Your task to perform on an android device: Go to eBay Image 0: 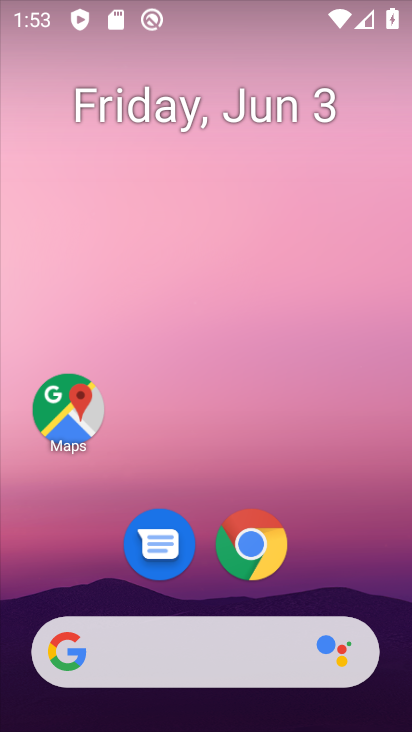
Step 0: drag from (370, 546) to (342, 142)
Your task to perform on an android device: Go to eBay Image 1: 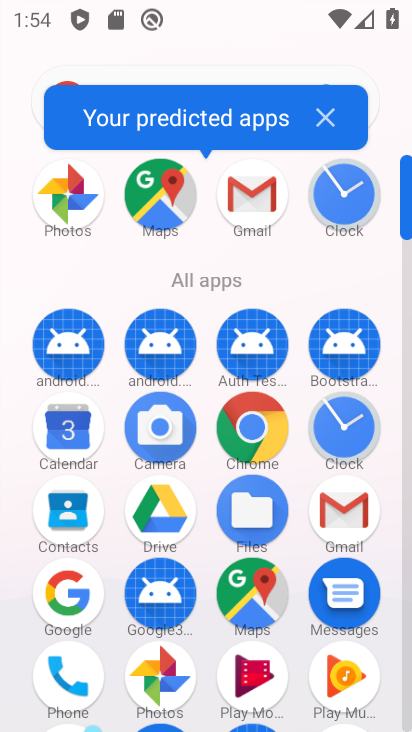
Step 1: click (266, 432)
Your task to perform on an android device: Go to eBay Image 2: 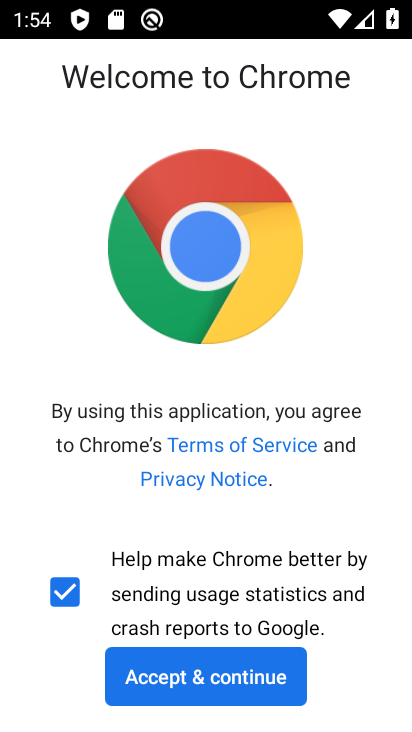
Step 2: click (229, 695)
Your task to perform on an android device: Go to eBay Image 3: 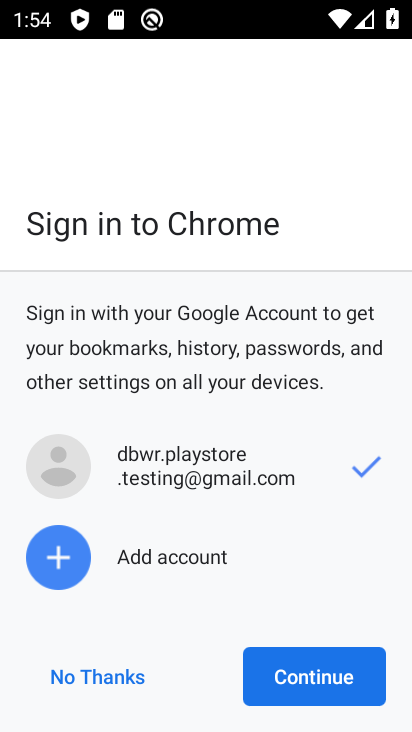
Step 3: click (289, 697)
Your task to perform on an android device: Go to eBay Image 4: 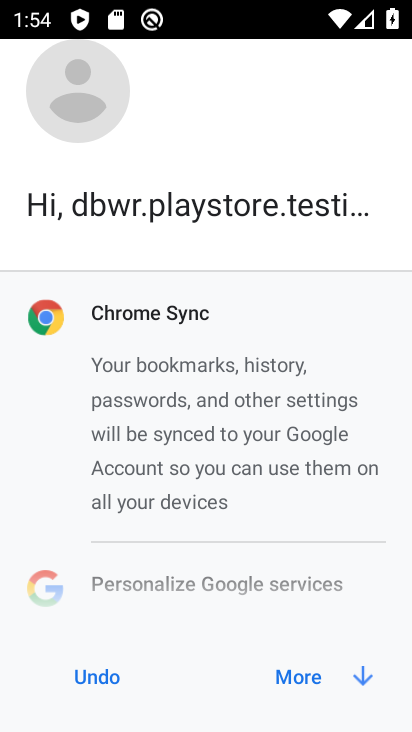
Step 4: click (296, 682)
Your task to perform on an android device: Go to eBay Image 5: 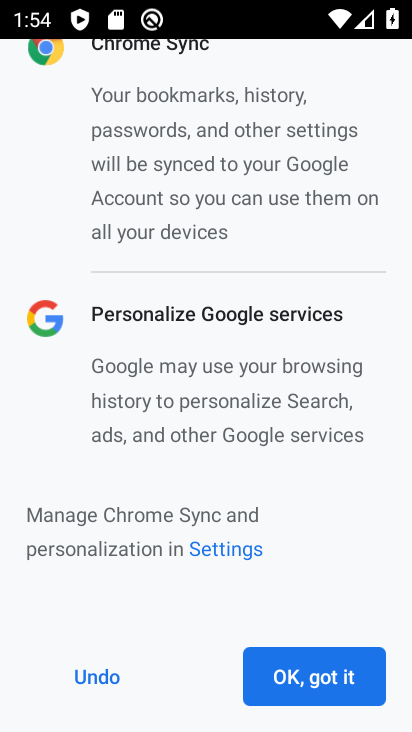
Step 5: click (299, 672)
Your task to perform on an android device: Go to eBay Image 6: 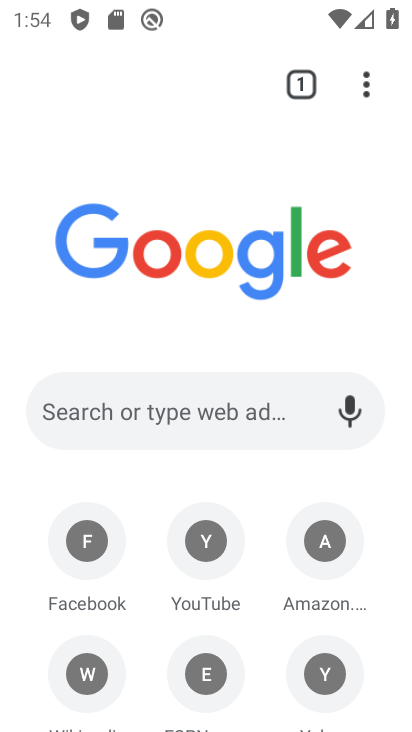
Step 6: click (197, 400)
Your task to perform on an android device: Go to eBay Image 7: 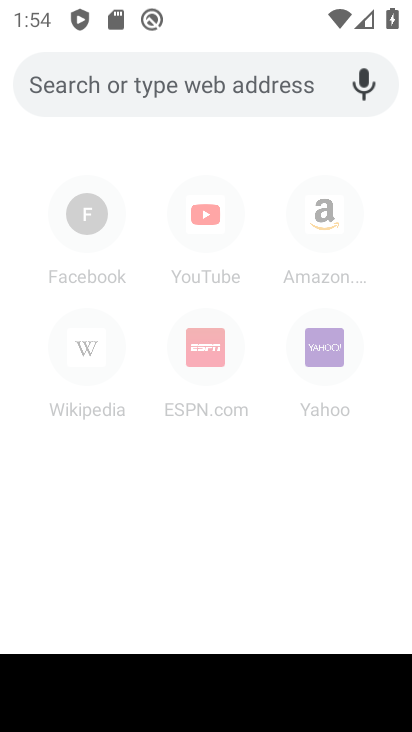
Step 7: type "ebay"
Your task to perform on an android device: Go to eBay Image 8: 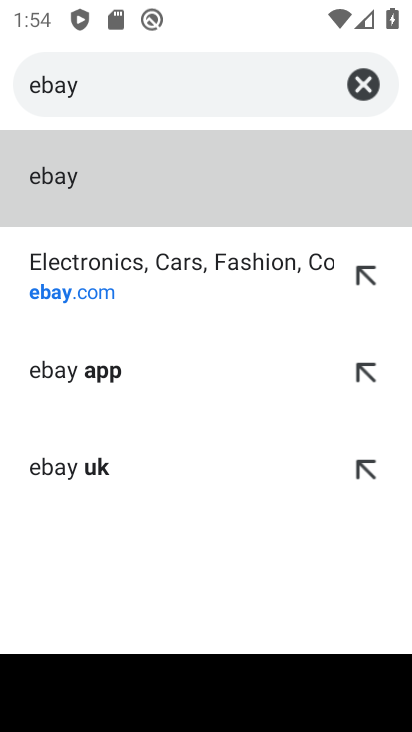
Step 8: click (99, 278)
Your task to perform on an android device: Go to eBay Image 9: 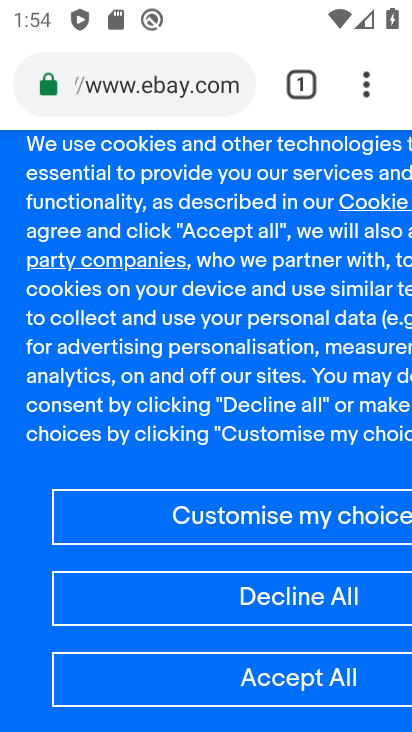
Step 9: task complete